Your task to perform on an android device: open app "Google Keep" (install if not already installed) Image 0: 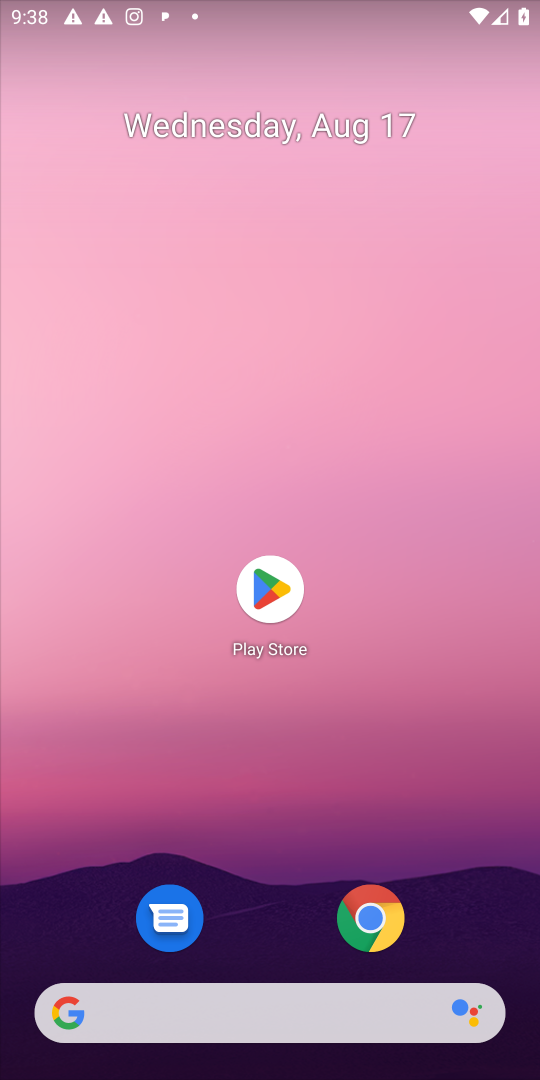
Step 0: click (271, 600)
Your task to perform on an android device: open app "Google Keep" (install if not already installed) Image 1: 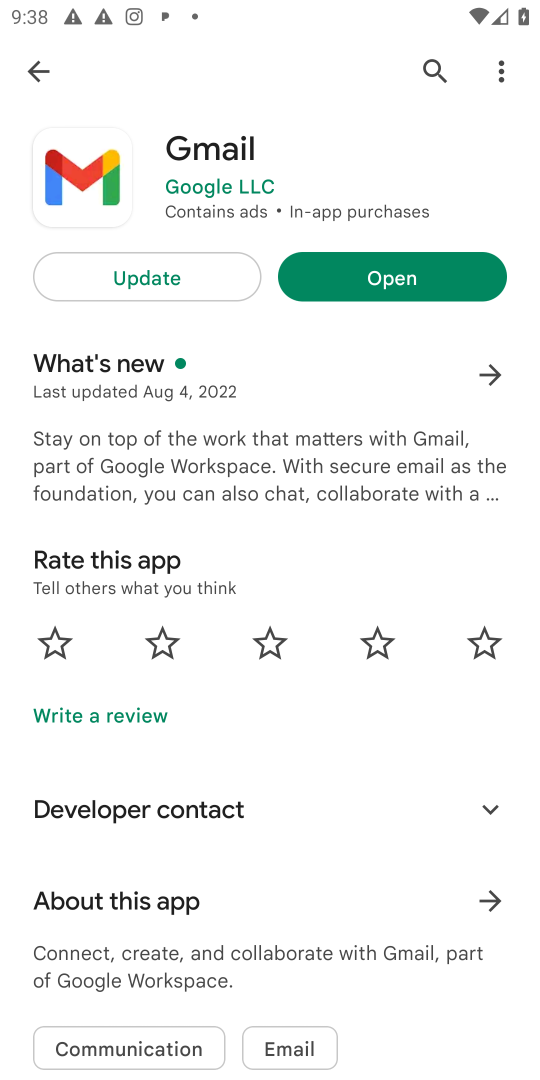
Step 1: click (427, 63)
Your task to perform on an android device: open app "Google Keep" (install if not already installed) Image 2: 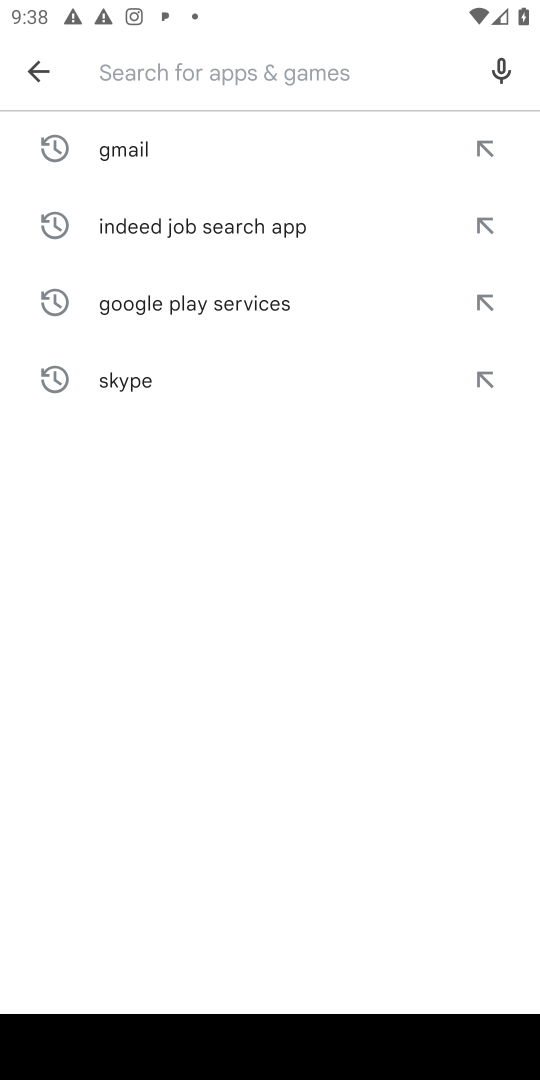
Step 2: type "Google Keep"
Your task to perform on an android device: open app "Google Keep" (install if not already installed) Image 3: 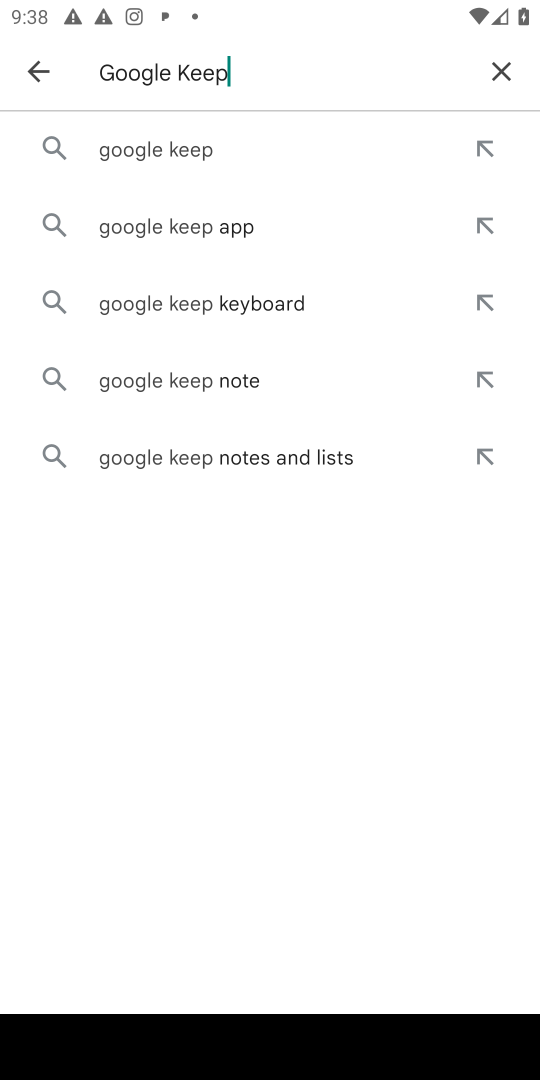
Step 3: click (163, 147)
Your task to perform on an android device: open app "Google Keep" (install if not already installed) Image 4: 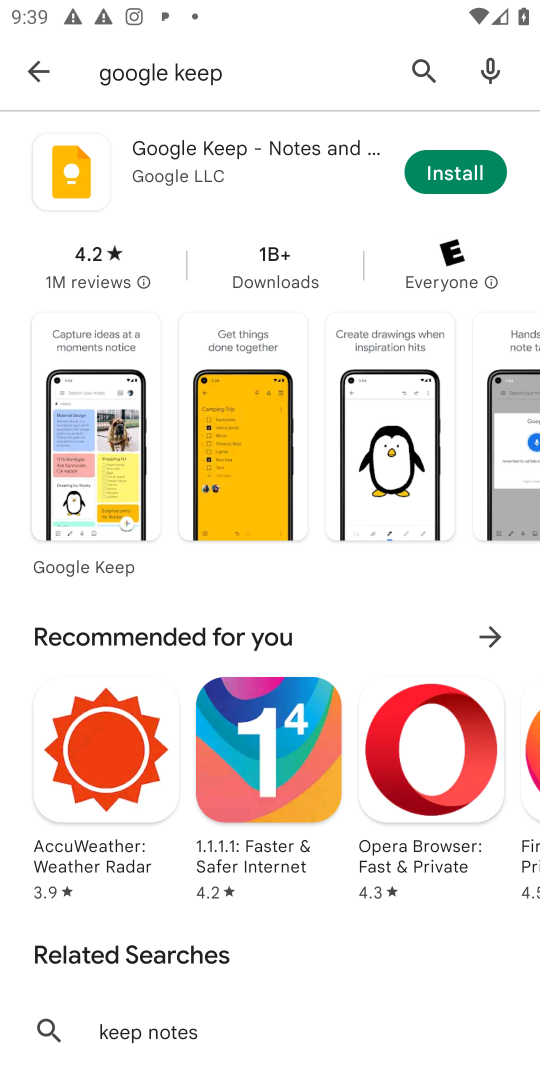
Step 4: click (454, 173)
Your task to perform on an android device: open app "Google Keep" (install if not already installed) Image 5: 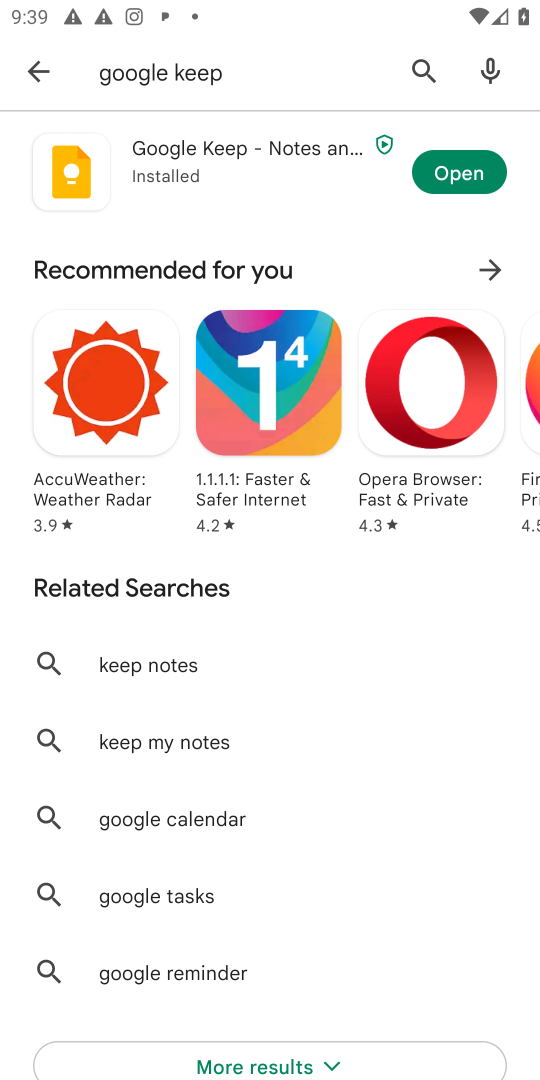
Step 5: click (437, 173)
Your task to perform on an android device: open app "Google Keep" (install if not already installed) Image 6: 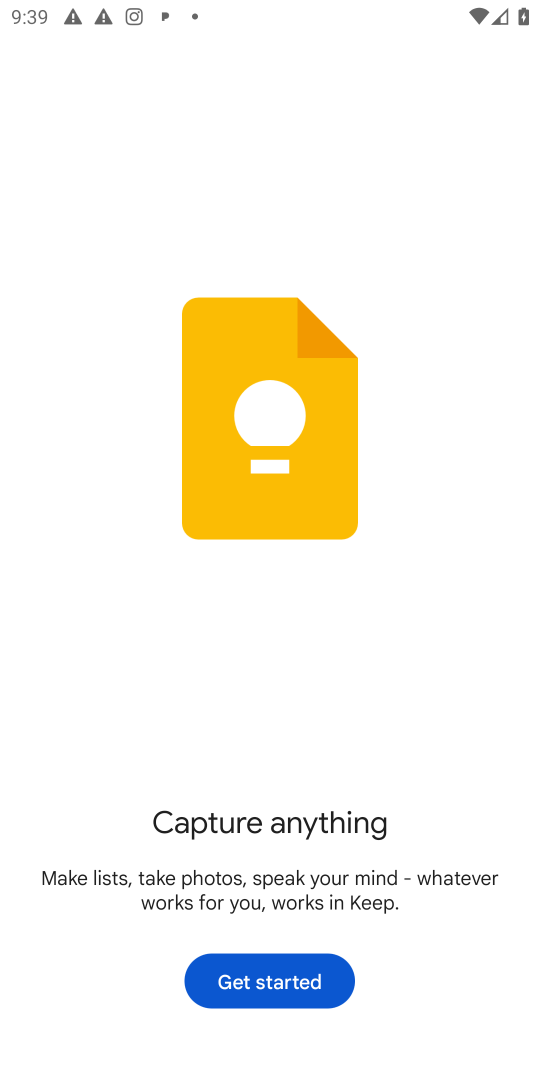
Step 6: task complete